Your task to perform on an android device: set the timer Image 0: 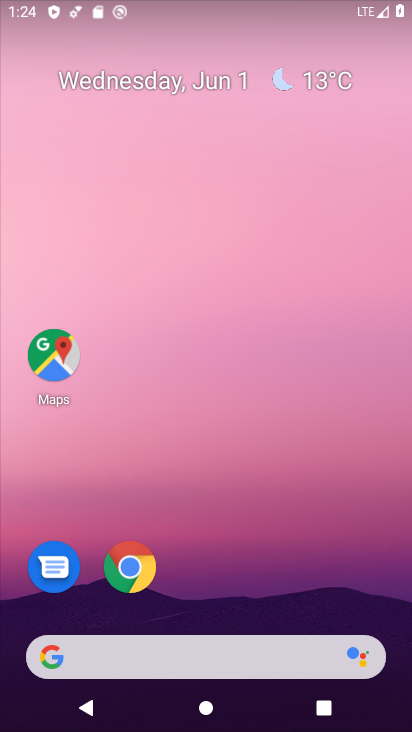
Step 0: drag from (351, 586) to (313, 47)
Your task to perform on an android device: set the timer Image 1: 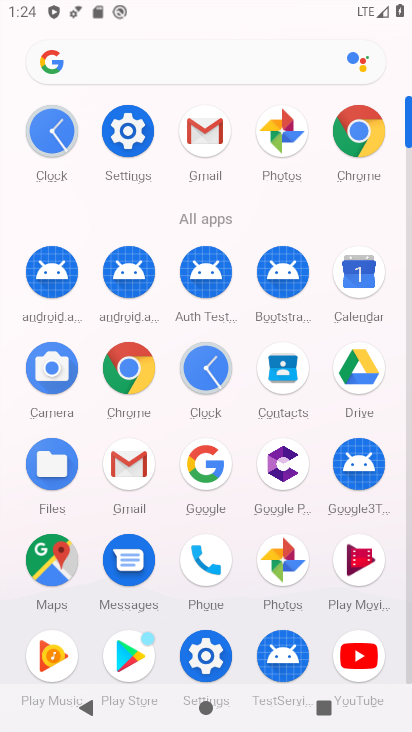
Step 1: click (218, 370)
Your task to perform on an android device: set the timer Image 2: 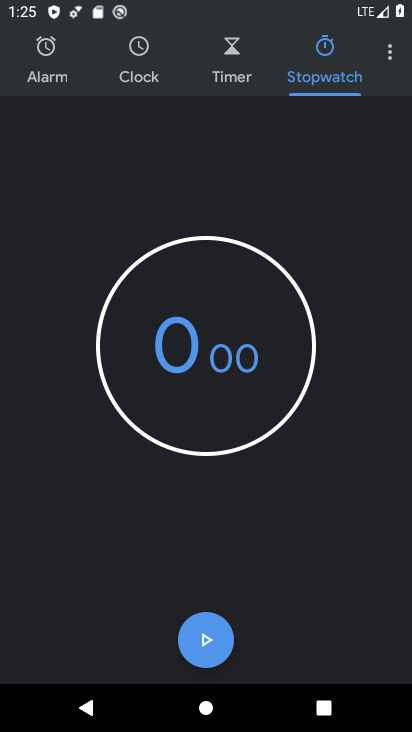
Step 2: click (394, 43)
Your task to perform on an android device: set the timer Image 3: 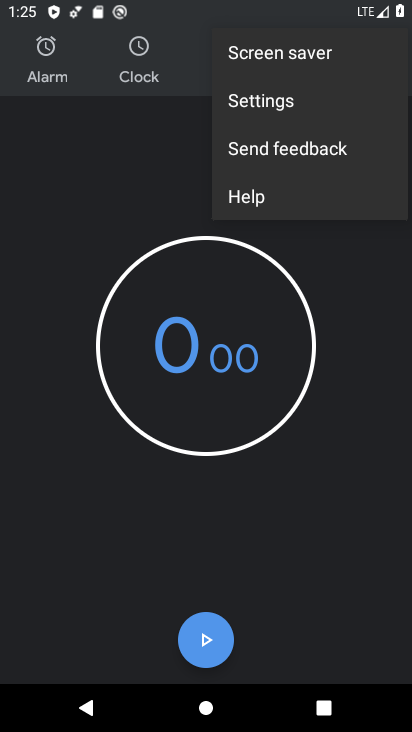
Step 3: click (178, 142)
Your task to perform on an android device: set the timer Image 4: 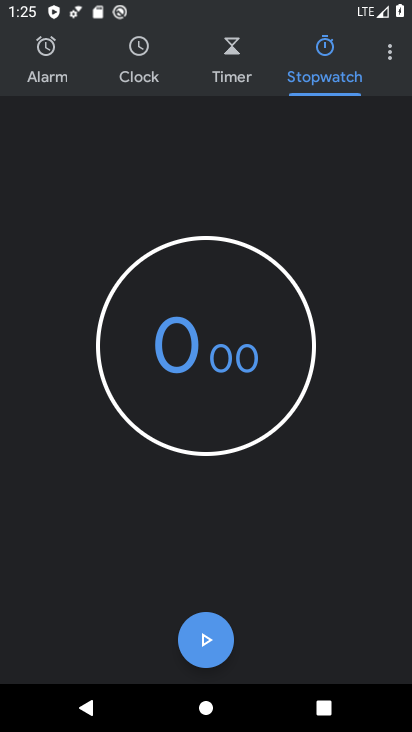
Step 4: click (254, 74)
Your task to perform on an android device: set the timer Image 5: 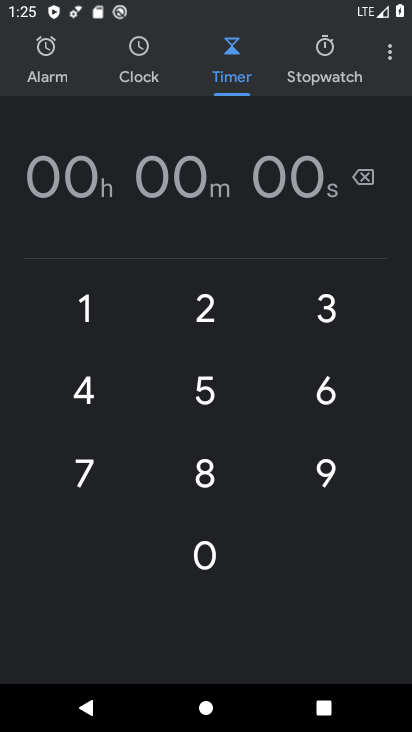
Step 5: click (212, 319)
Your task to perform on an android device: set the timer Image 6: 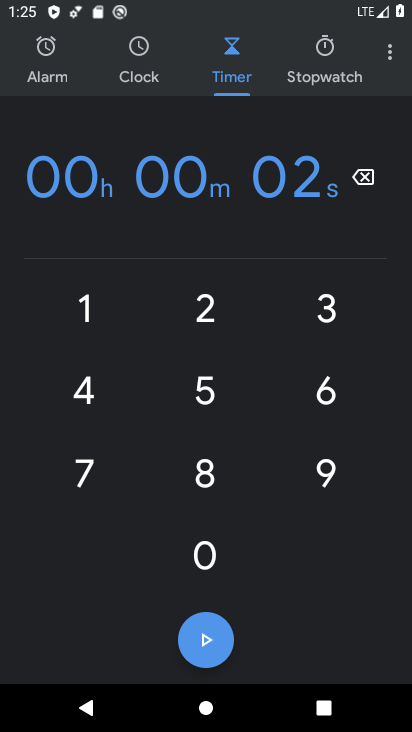
Step 6: click (215, 377)
Your task to perform on an android device: set the timer Image 7: 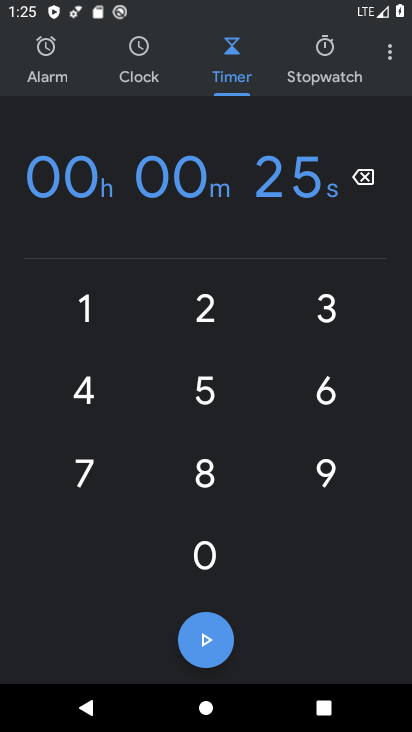
Step 7: click (218, 310)
Your task to perform on an android device: set the timer Image 8: 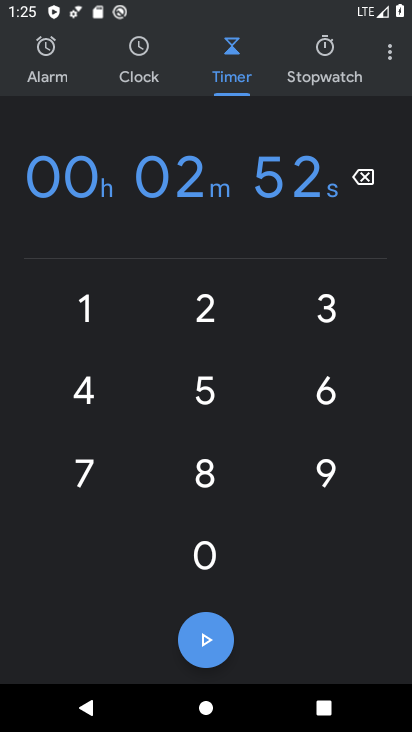
Step 8: click (222, 381)
Your task to perform on an android device: set the timer Image 9: 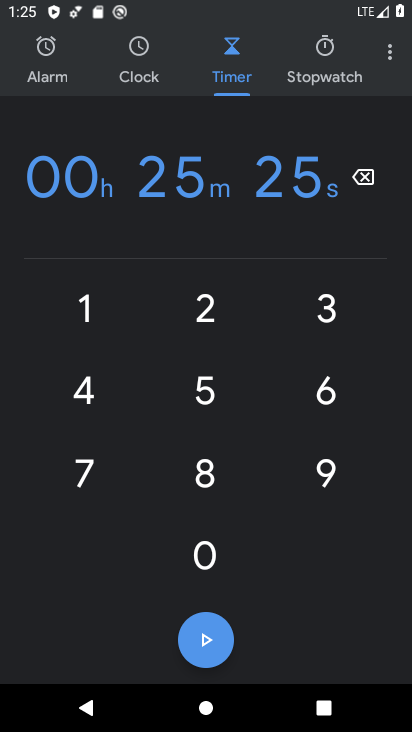
Step 9: click (227, 334)
Your task to perform on an android device: set the timer Image 10: 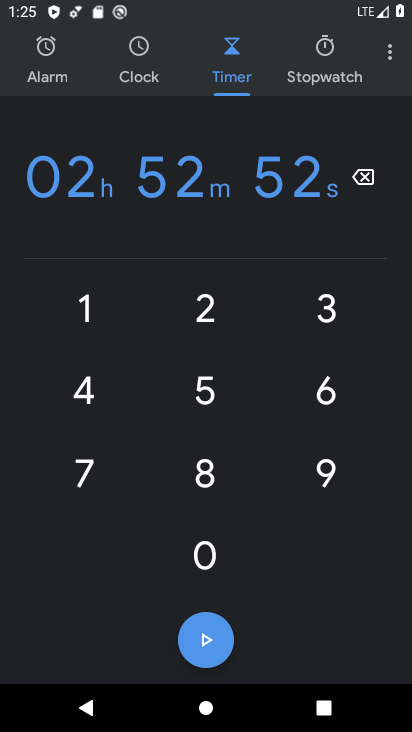
Step 10: click (96, 405)
Your task to perform on an android device: set the timer Image 11: 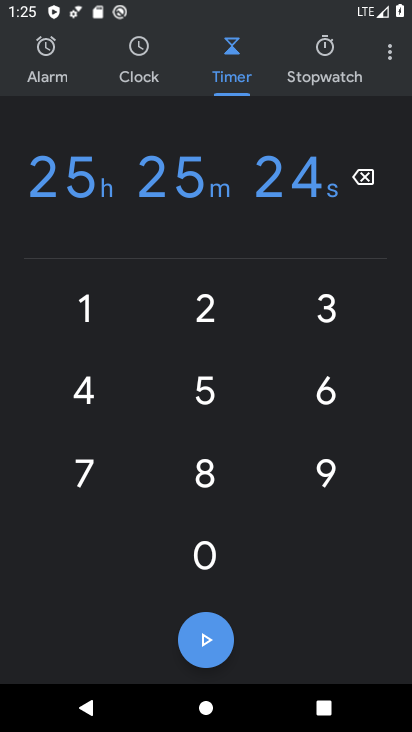
Step 11: task complete